Your task to perform on an android device: show emergency info Image 0: 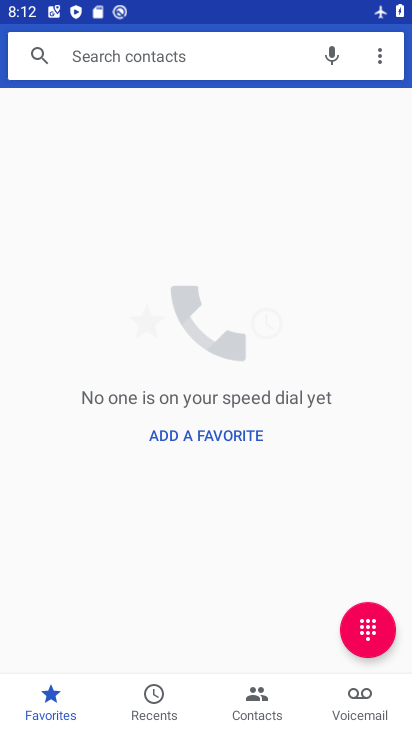
Step 0: press home button
Your task to perform on an android device: show emergency info Image 1: 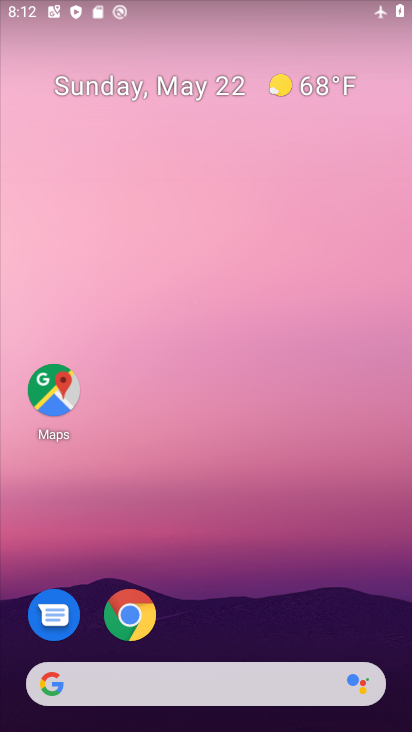
Step 1: drag from (230, 659) to (334, 5)
Your task to perform on an android device: show emergency info Image 2: 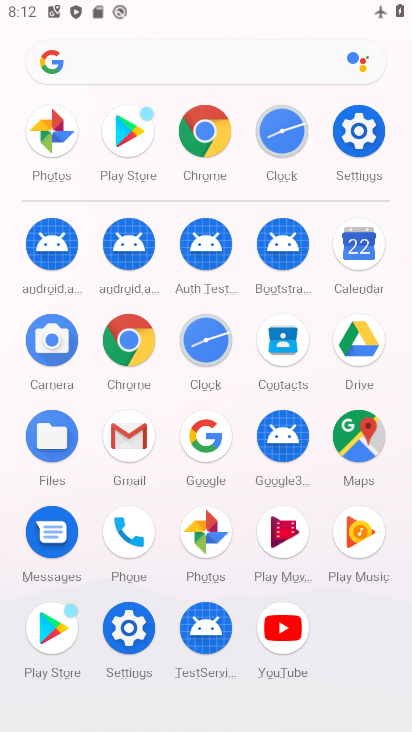
Step 2: click (352, 184)
Your task to perform on an android device: show emergency info Image 3: 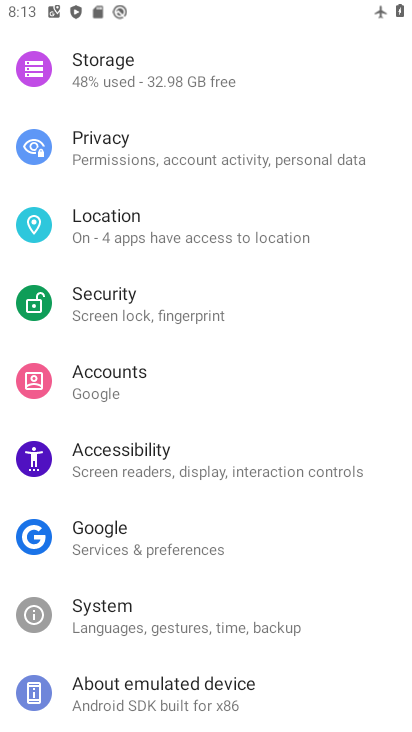
Step 3: click (78, 708)
Your task to perform on an android device: show emergency info Image 4: 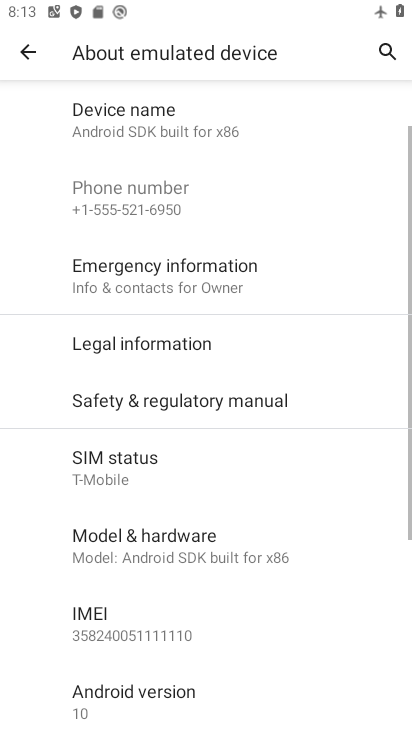
Step 4: click (138, 279)
Your task to perform on an android device: show emergency info Image 5: 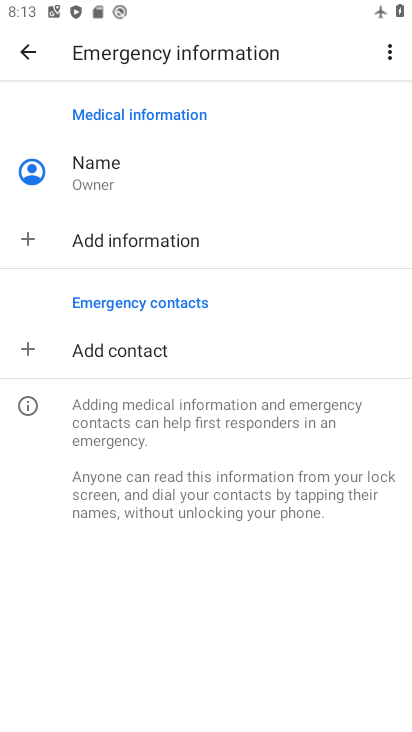
Step 5: task complete